Your task to perform on an android device: Open calendar and show me the fourth week of next month Image 0: 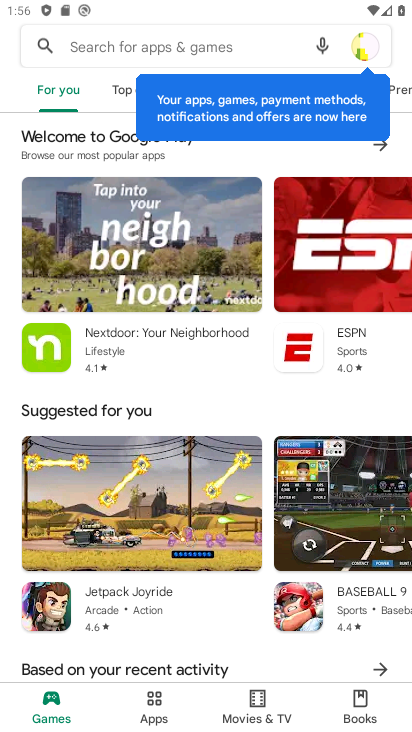
Step 0: press home button
Your task to perform on an android device: Open calendar and show me the fourth week of next month Image 1: 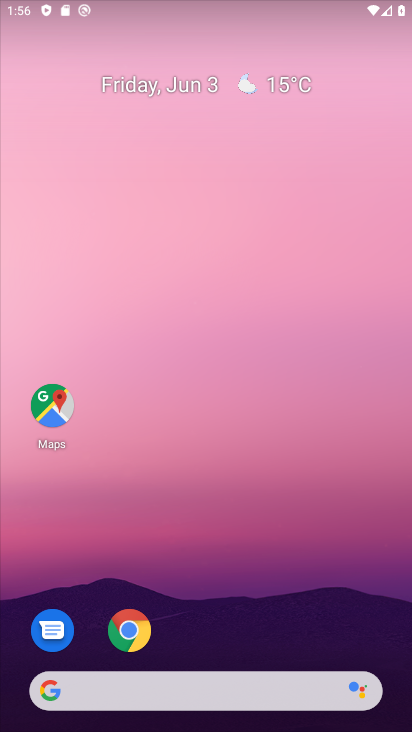
Step 1: drag from (286, 633) to (314, 25)
Your task to perform on an android device: Open calendar and show me the fourth week of next month Image 2: 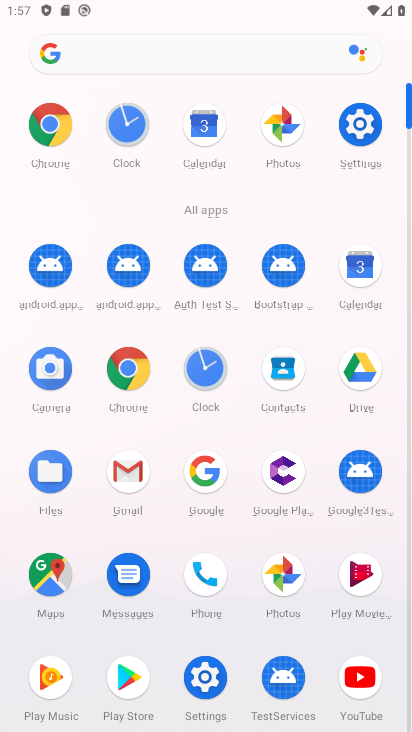
Step 2: click (355, 275)
Your task to perform on an android device: Open calendar and show me the fourth week of next month Image 3: 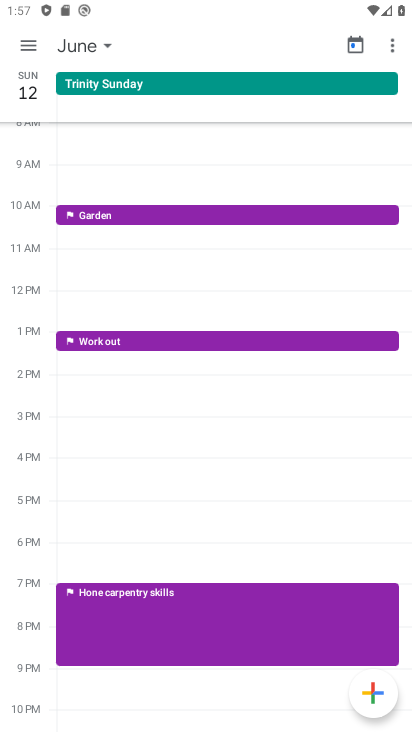
Step 3: click (106, 51)
Your task to perform on an android device: Open calendar and show me the fourth week of next month Image 4: 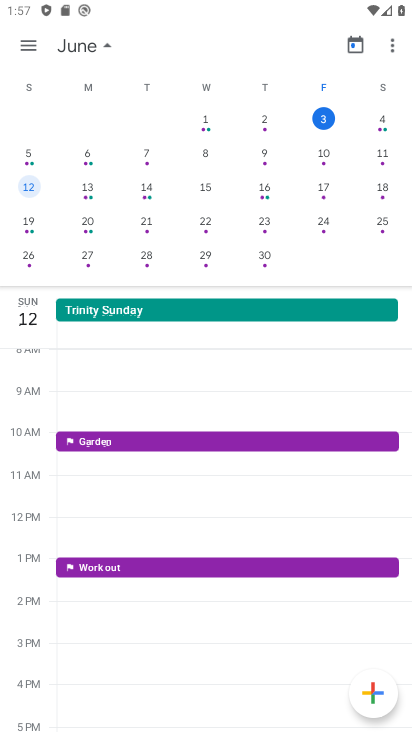
Step 4: drag from (367, 182) to (60, 115)
Your task to perform on an android device: Open calendar and show me the fourth week of next month Image 5: 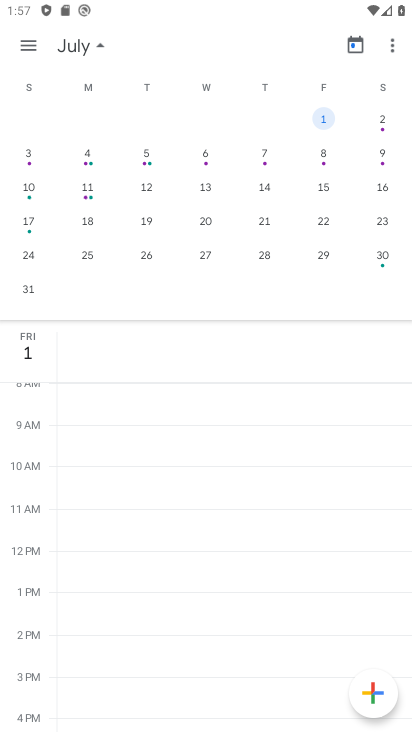
Step 5: click (325, 208)
Your task to perform on an android device: Open calendar and show me the fourth week of next month Image 6: 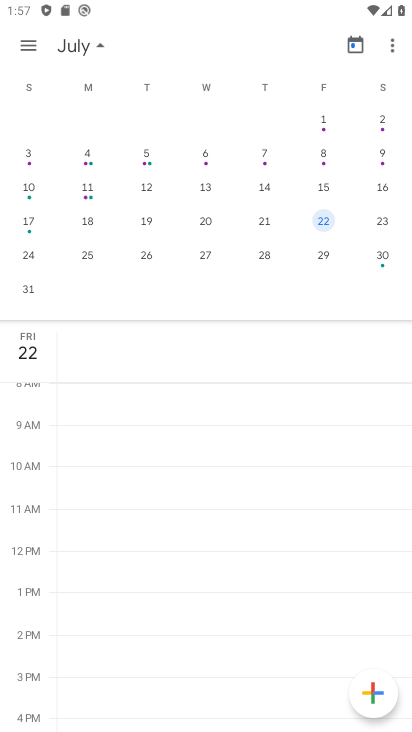
Step 6: task complete